Your task to perform on an android device: Go to accessibility settings Image 0: 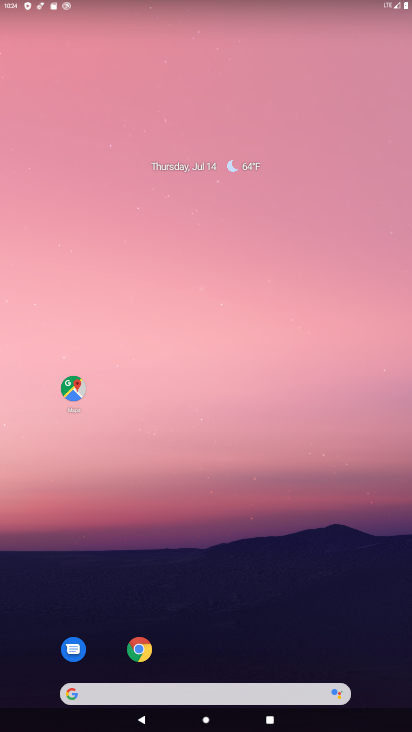
Step 0: drag from (250, 665) to (293, 11)
Your task to perform on an android device: Go to accessibility settings Image 1: 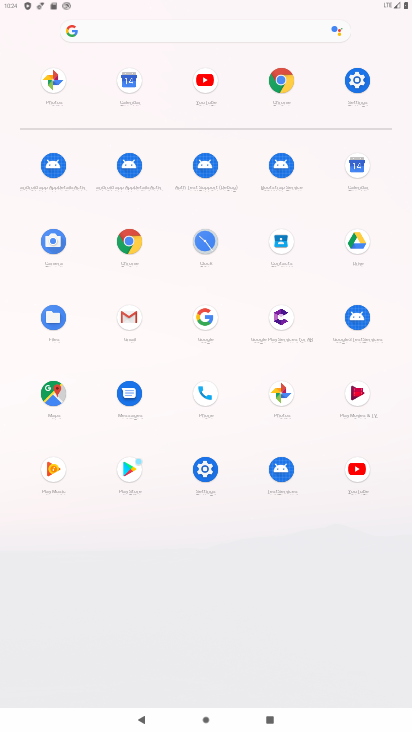
Step 1: click (193, 480)
Your task to perform on an android device: Go to accessibility settings Image 2: 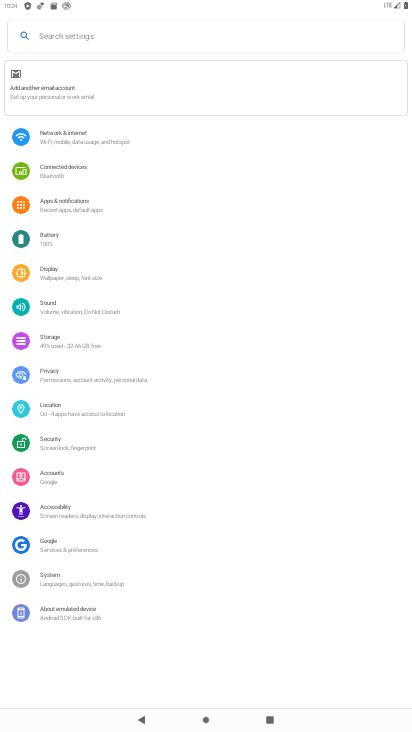
Step 2: click (73, 521)
Your task to perform on an android device: Go to accessibility settings Image 3: 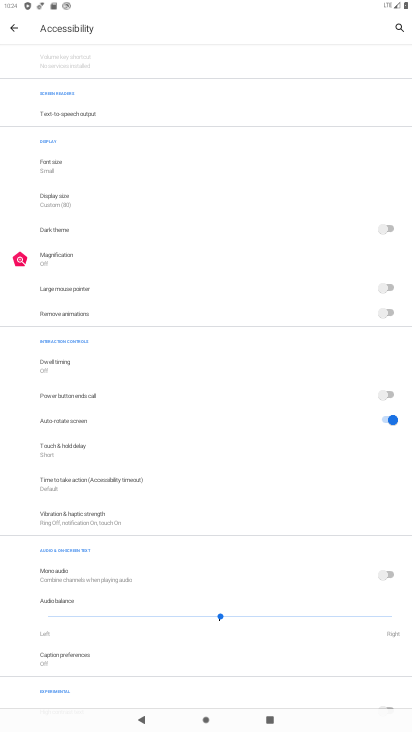
Step 3: task complete